Your task to perform on an android device: add a contact Image 0: 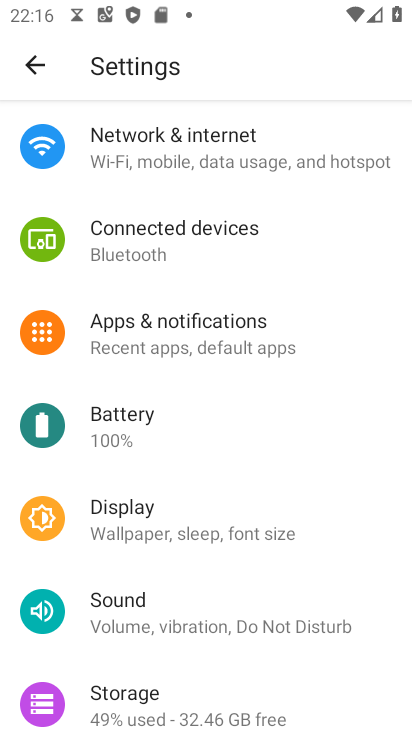
Step 0: press home button
Your task to perform on an android device: add a contact Image 1: 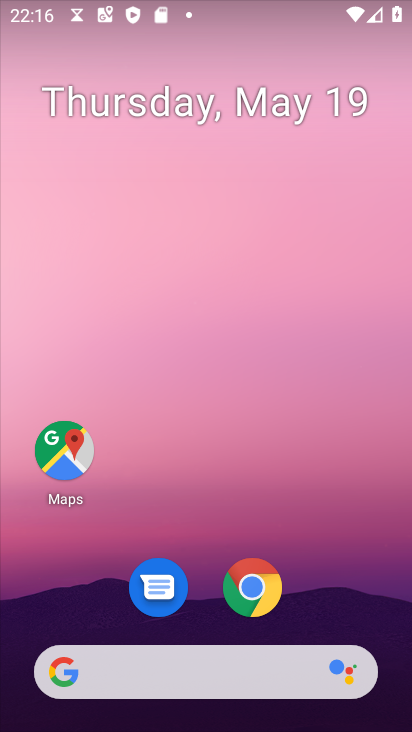
Step 1: drag from (203, 669) to (234, 93)
Your task to perform on an android device: add a contact Image 2: 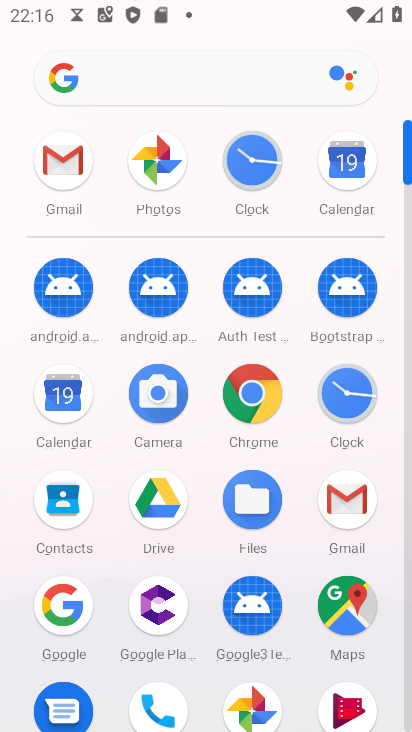
Step 2: click (59, 517)
Your task to perform on an android device: add a contact Image 3: 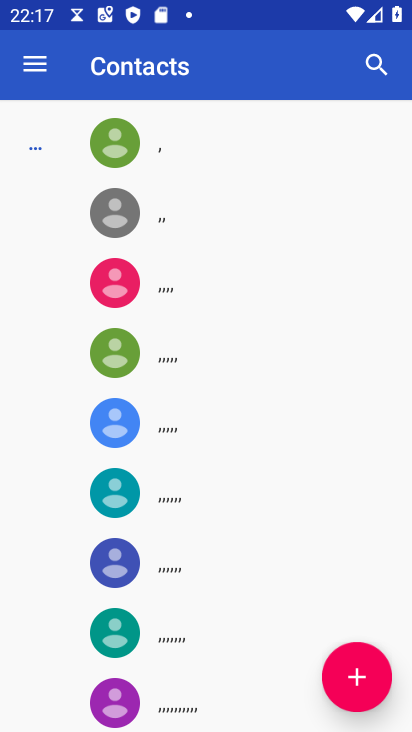
Step 3: click (353, 682)
Your task to perform on an android device: add a contact Image 4: 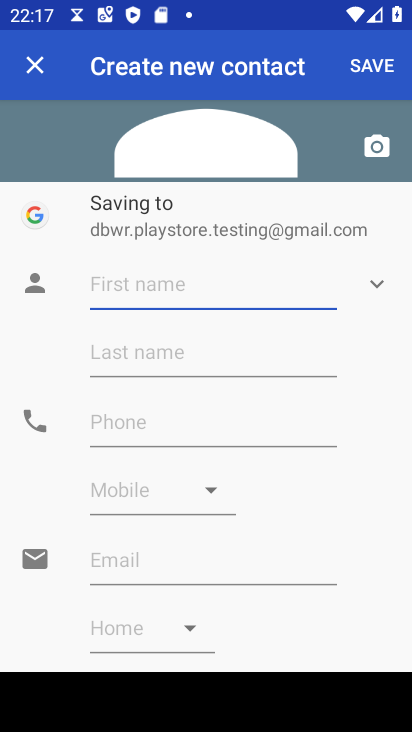
Step 4: type "bvnb"
Your task to perform on an android device: add a contact Image 5: 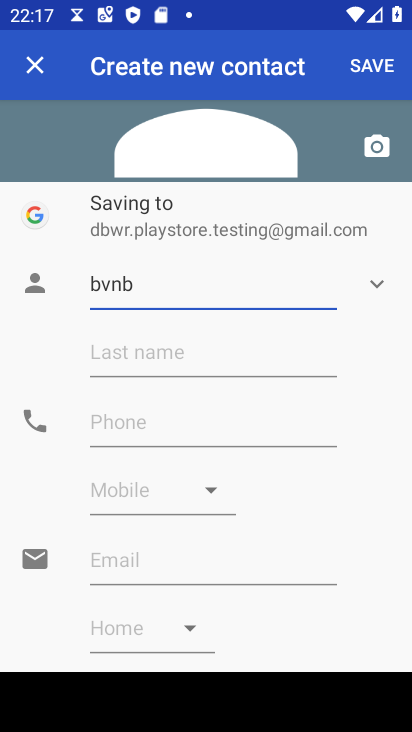
Step 5: click (186, 442)
Your task to perform on an android device: add a contact Image 6: 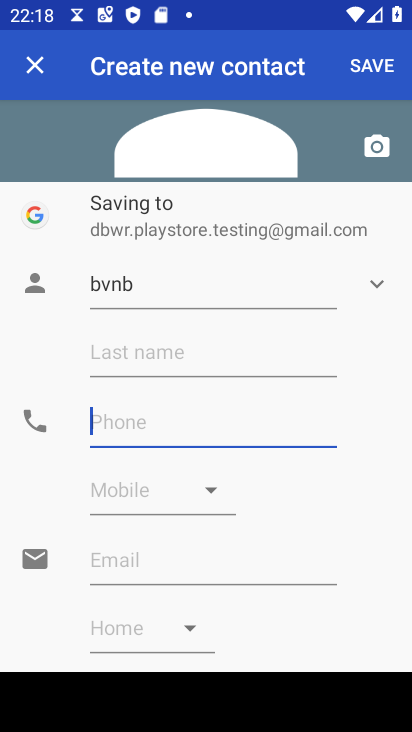
Step 6: type "686789"
Your task to perform on an android device: add a contact Image 7: 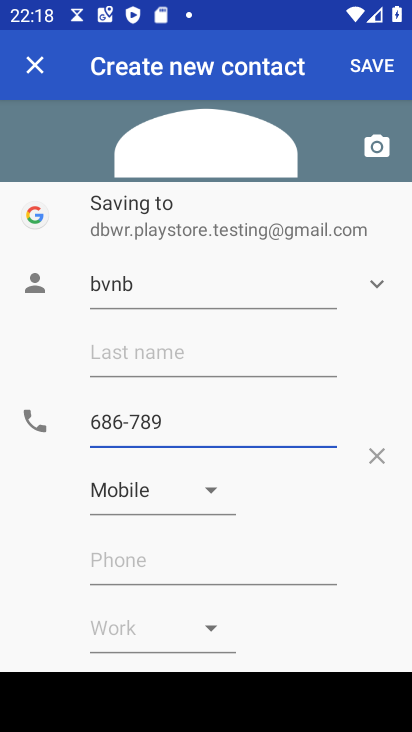
Step 7: click (397, 68)
Your task to perform on an android device: add a contact Image 8: 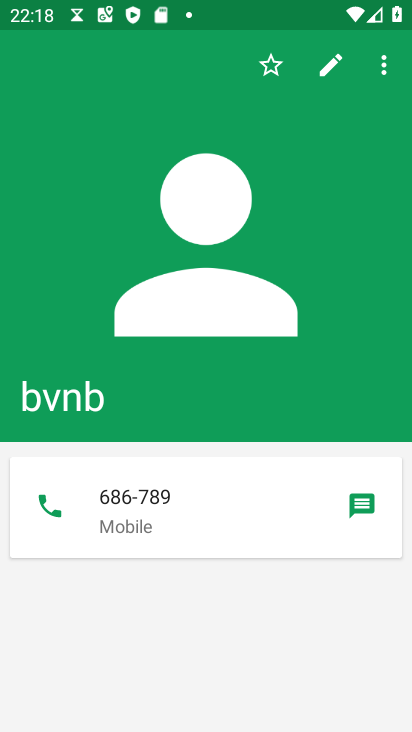
Step 8: task complete